Your task to perform on an android device: Find coffee shops on Maps Image 0: 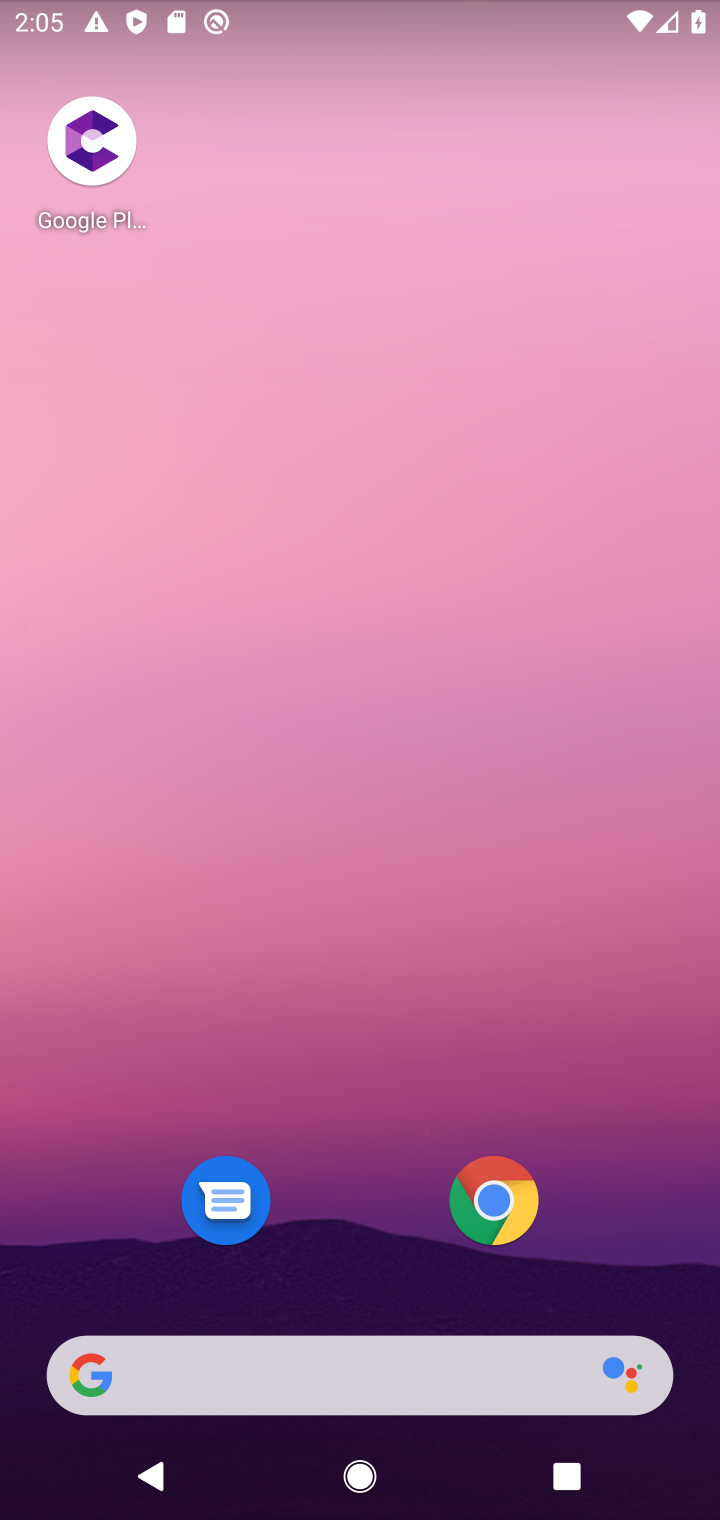
Step 0: drag from (78, 1454) to (352, 629)
Your task to perform on an android device: Find coffee shops on Maps Image 1: 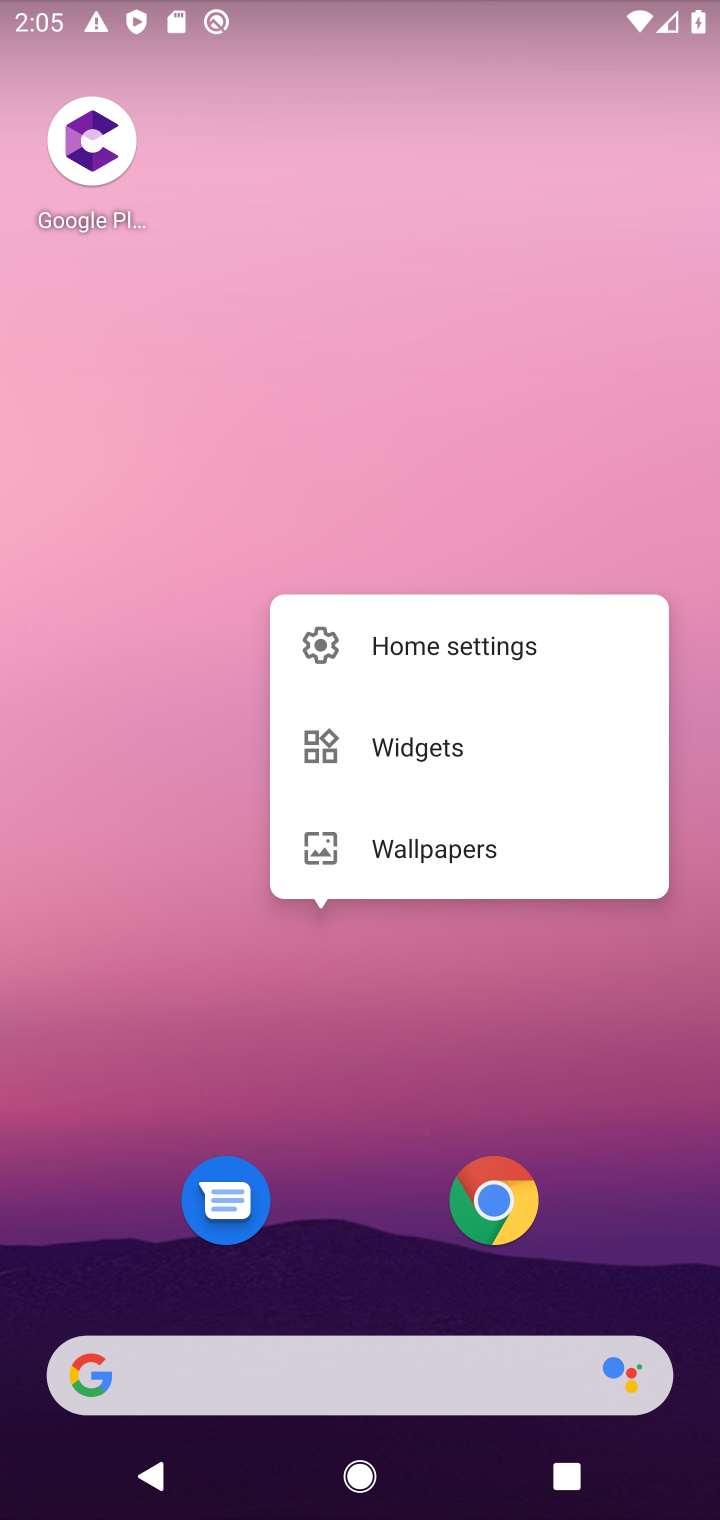
Step 1: task complete